Your task to perform on an android device: set default search engine in the chrome app Image 0: 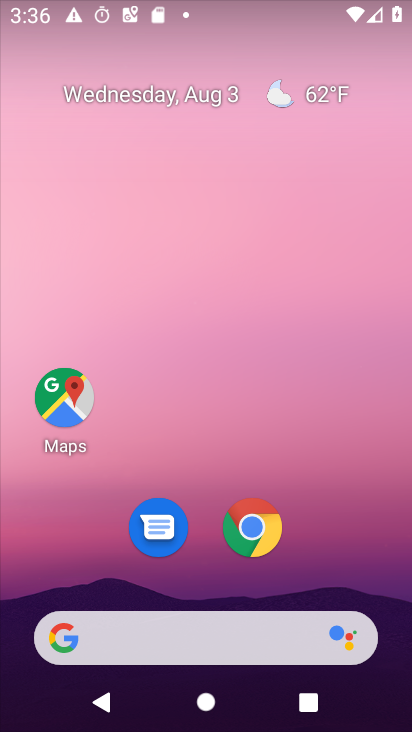
Step 0: drag from (325, 552) to (164, 82)
Your task to perform on an android device: set default search engine in the chrome app Image 1: 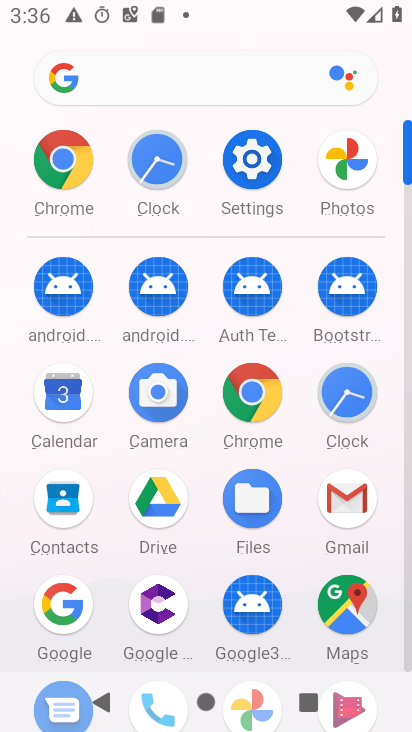
Step 1: click (247, 385)
Your task to perform on an android device: set default search engine in the chrome app Image 2: 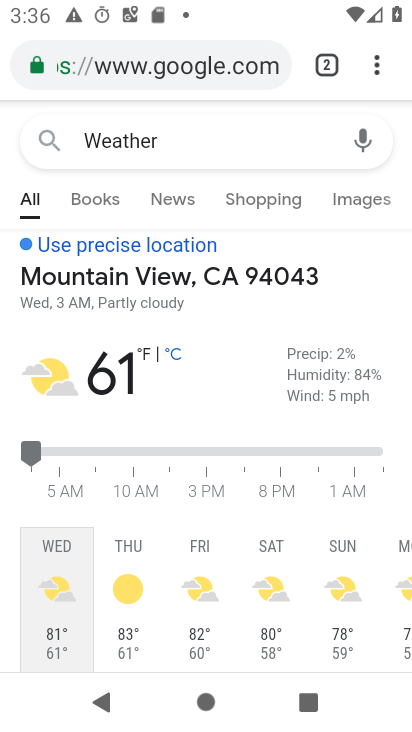
Step 2: drag from (372, 60) to (136, 565)
Your task to perform on an android device: set default search engine in the chrome app Image 3: 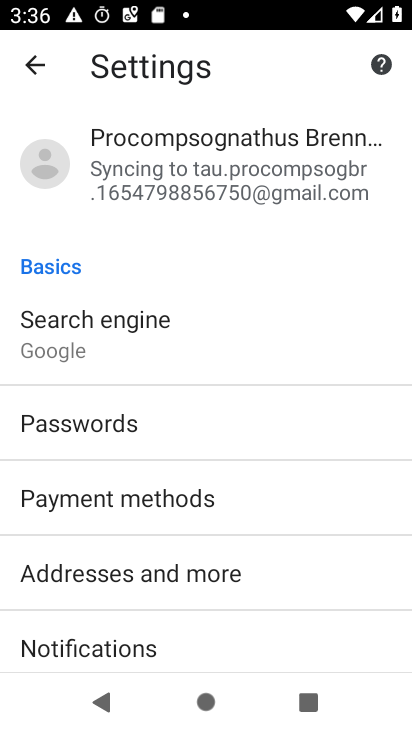
Step 3: click (126, 318)
Your task to perform on an android device: set default search engine in the chrome app Image 4: 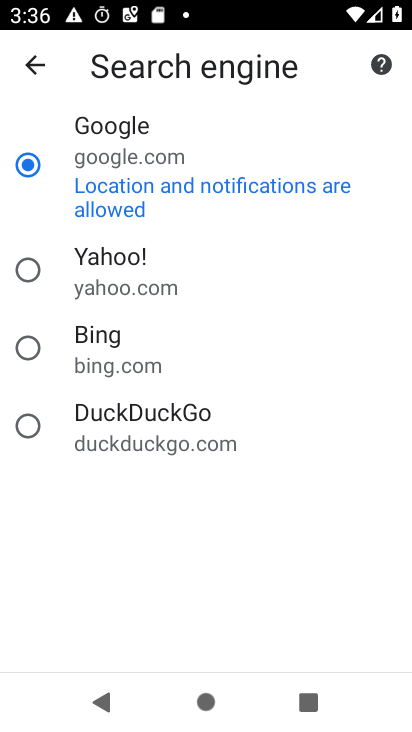
Step 4: task complete